Your task to perform on an android device: turn off location history Image 0: 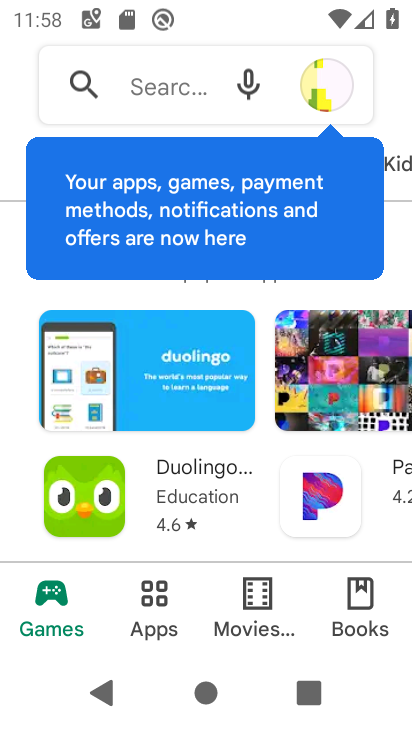
Step 0: press home button
Your task to perform on an android device: turn off location history Image 1: 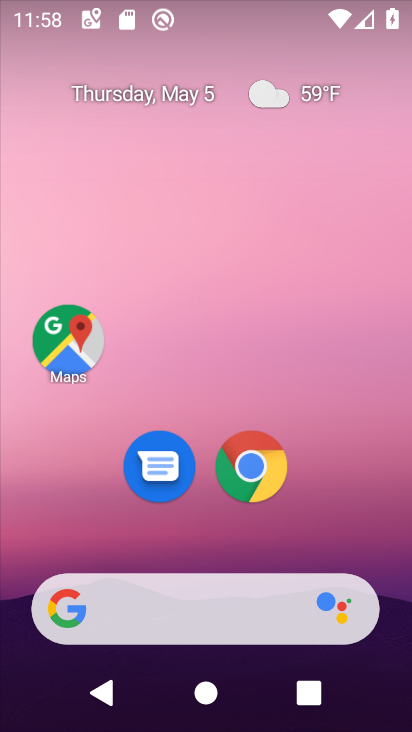
Step 1: click (88, 345)
Your task to perform on an android device: turn off location history Image 2: 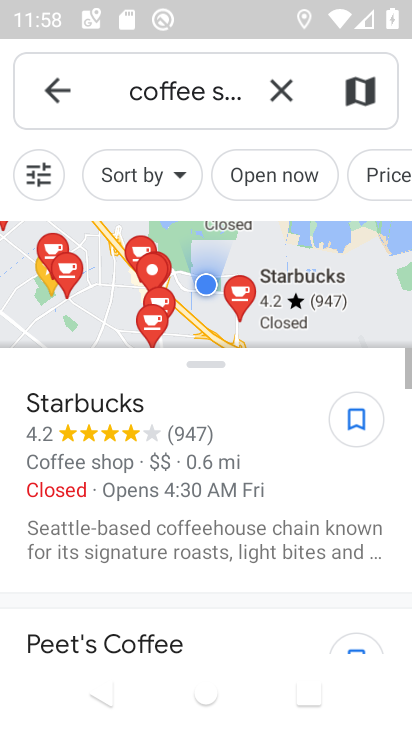
Step 2: click (60, 91)
Your task to perform on an android device: turn off location history Image 3: 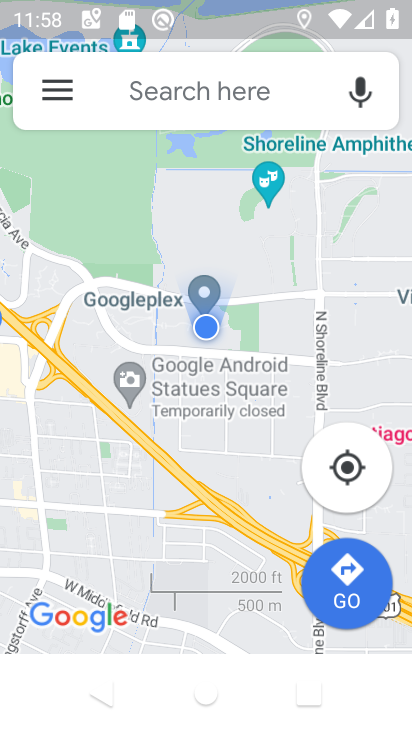
Step 3: click (60, 91)
Your task to perform on an android device: turn off location history Image 4: 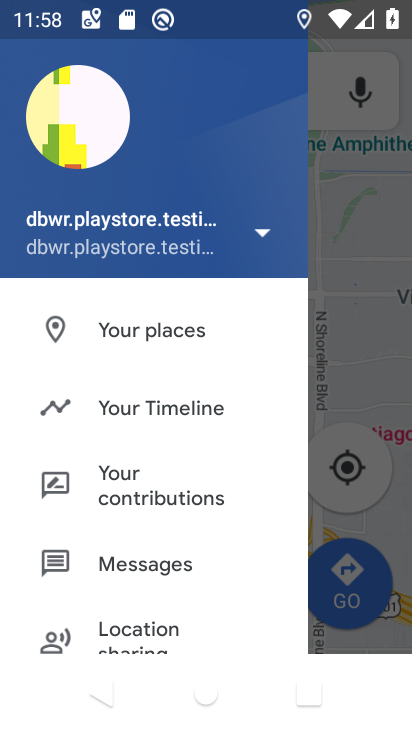
Step 4: click (206, 415)
Your task to perform on an android device: turn off location history Image 5: 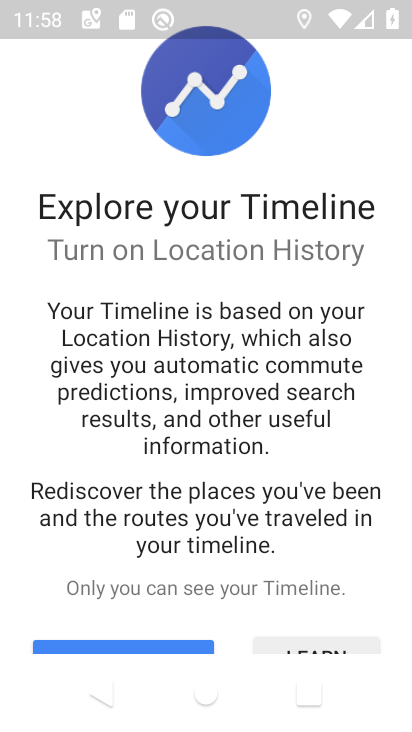
Step 5: drag from (206, 415) to (267, 500)
Your task to perform on an android device: turn off location history Image 6: 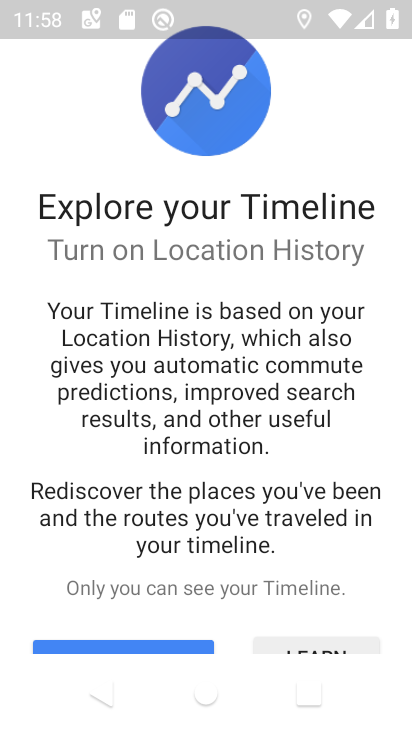
Step 6: drag from (267, 500) to (278, 126)
Your task to perform on an android device: turn off location history Image 7: 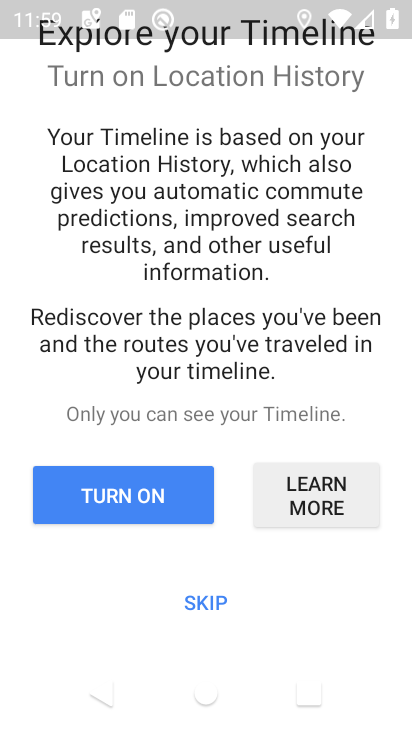
Step 7: click (205, 595)
Your task to perform on an android device: turn off location history Image 8: 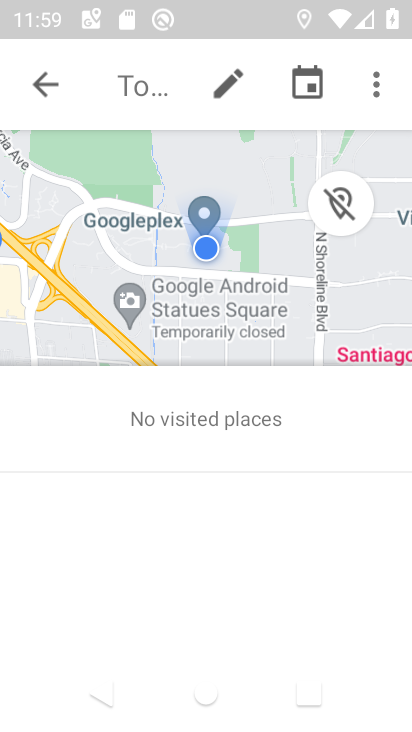
Step 8: click (373, 114)
Your task to perform on an android device: turn off location history Image 9: 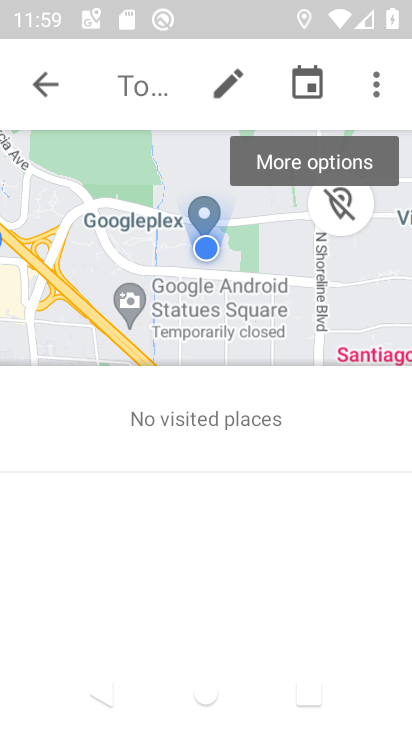
Step 9: click (372, 115)
Your task to perform on an android device: turn off location history Image 10: 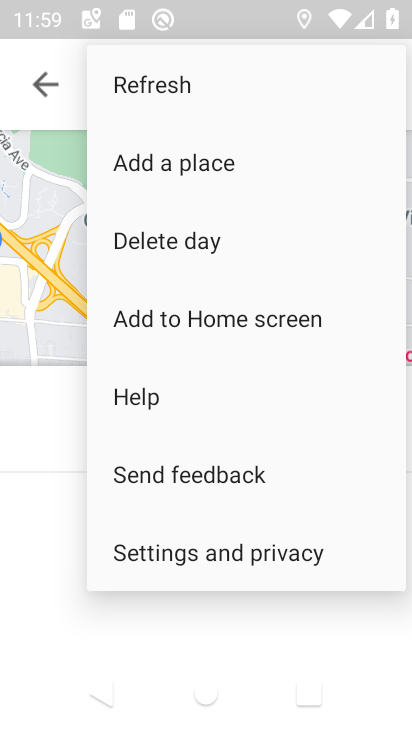
Step 10: click (317, 549)
Your task to perform on an android device: turn off location history Image 11: 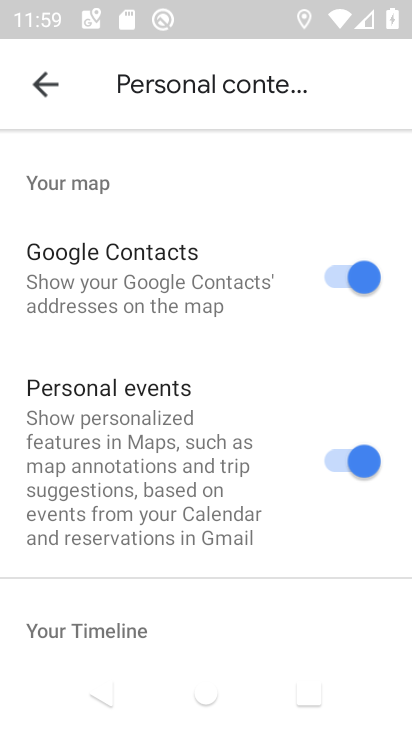
Step 11: task complete